Your task to perform on an android device: add a contact in the contacts app Image 0: 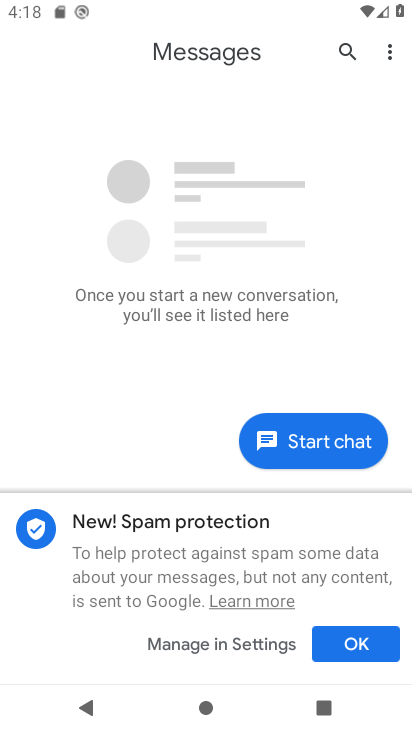
Step 0: press home button
Your task to perform on an android device: add a contact in the contacts app Image 1: 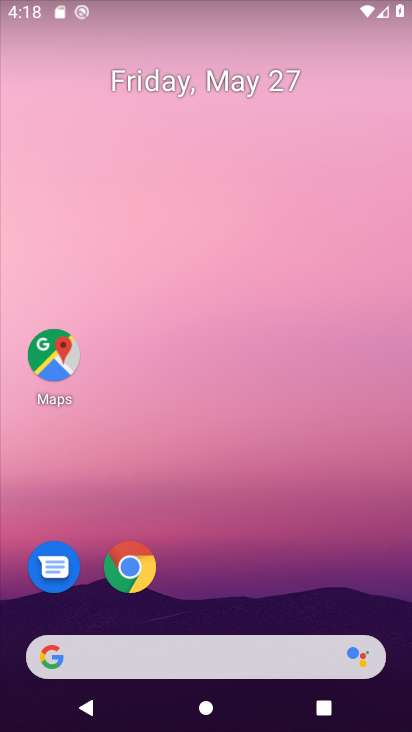
Step 1: drag from (242, 570) to (174, 8)
Your task to perform on an android device: add a contact in the contacts app Image 2: 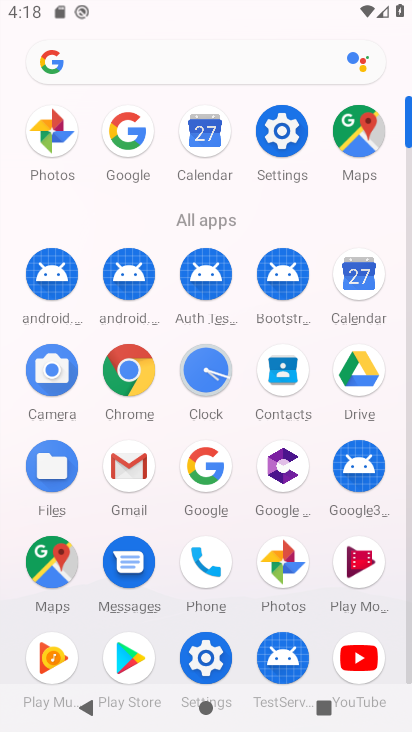
Step 2: click (284, 378)
Your task to perform on an android device: add a contact in the contacts app Image 3: 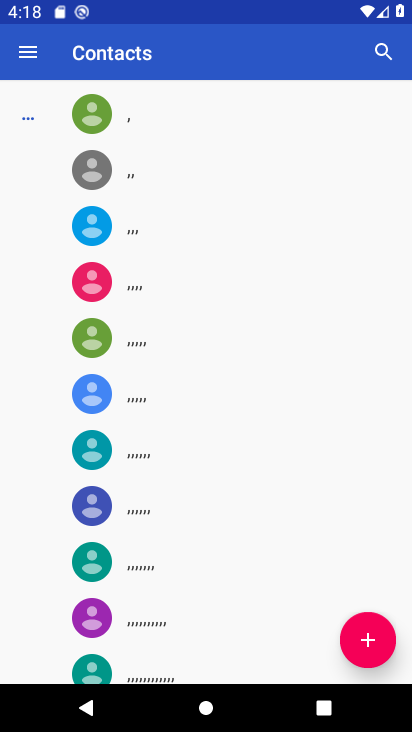
Step 3: click (378, 647)
Your task to perform on an android device: add a contact in the contacts app Image 4: 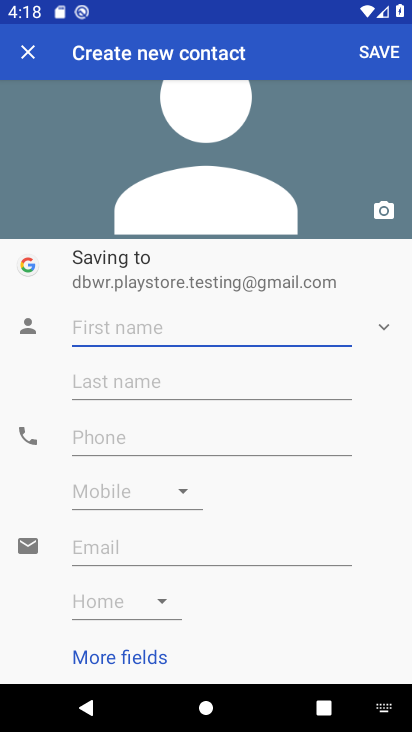
Step 4: type "trfgvbc"
Your task to perform on an android device: add a contact in the contacts app Image 5: 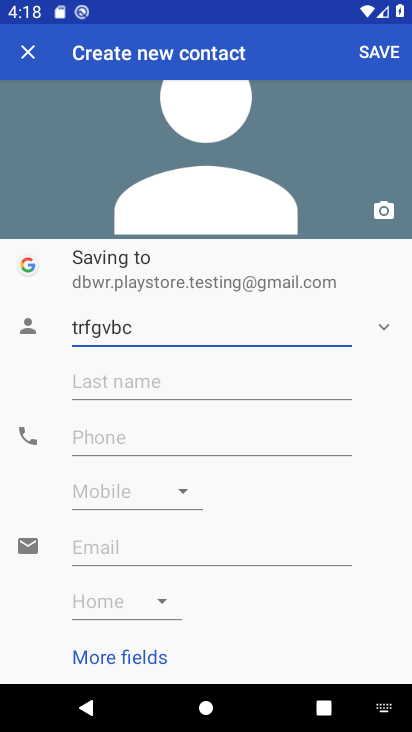
Step 5: click (109, 441)
Your task to perform on an android device: add a contact in the contacts app Image 6: 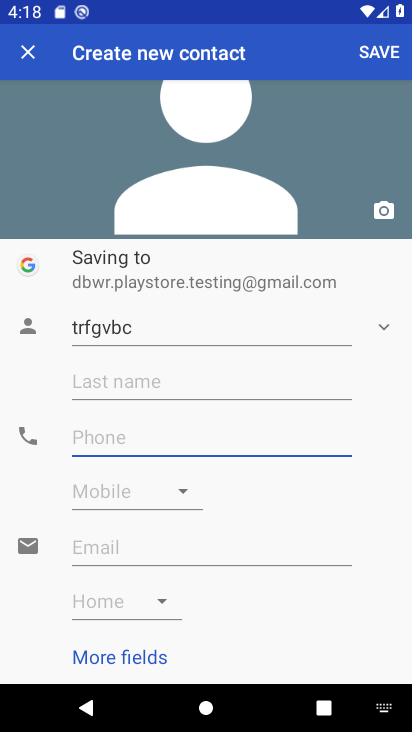
Step 6: type "9807654321"
Your task to perform on an android device: add a contact in the contacts app Image 7: 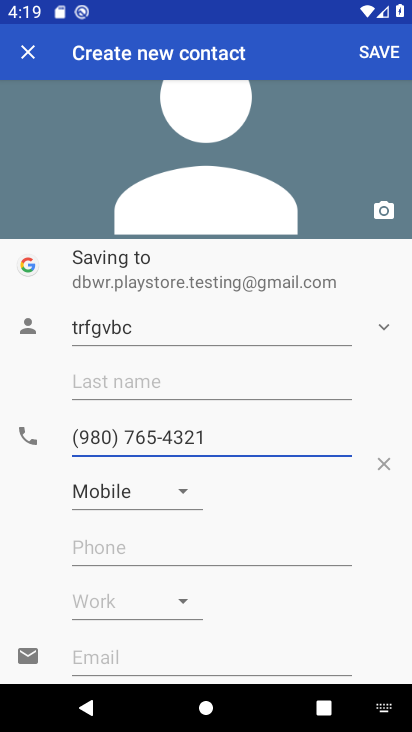
Step 7: click (370, 60)
Your task to perform on an android device: add a contact in the contacts app Image 8: 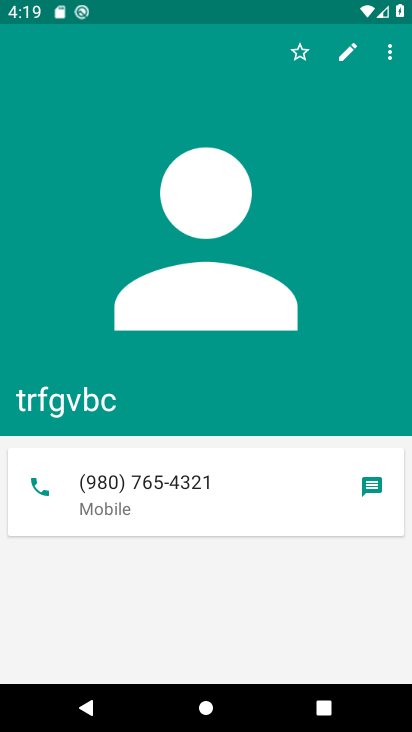
Step 8: task complete